Your task to perform on an android device: Go to location settings Image 0: 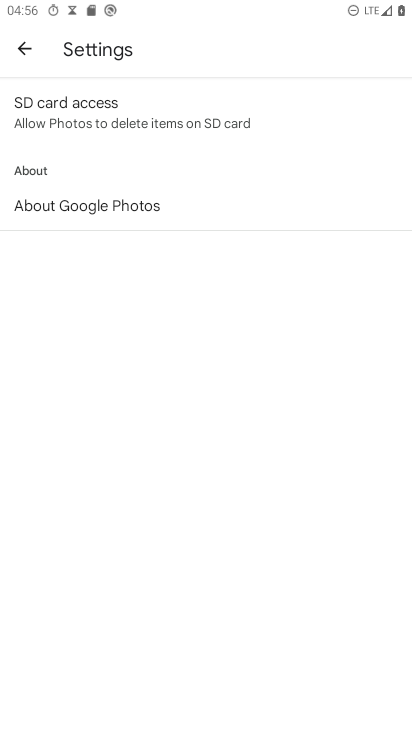
Step 0: press home button
Your task to perform on an android device: Go to location settings Image 1: 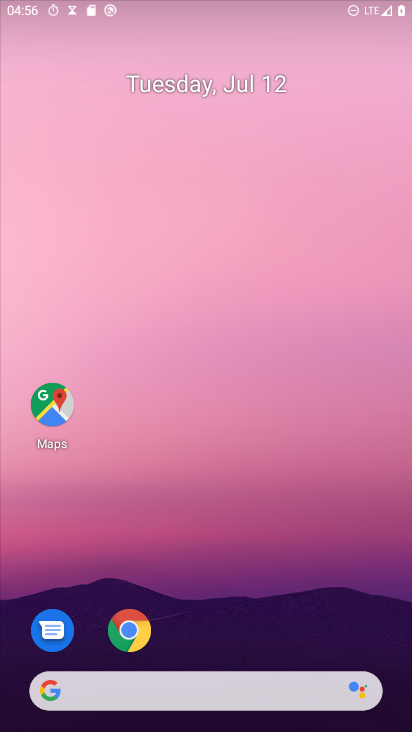
Step 1: drag from (203, 625) to (203, 1)
Your task to perform on an android device: Go to location settings Image 2: 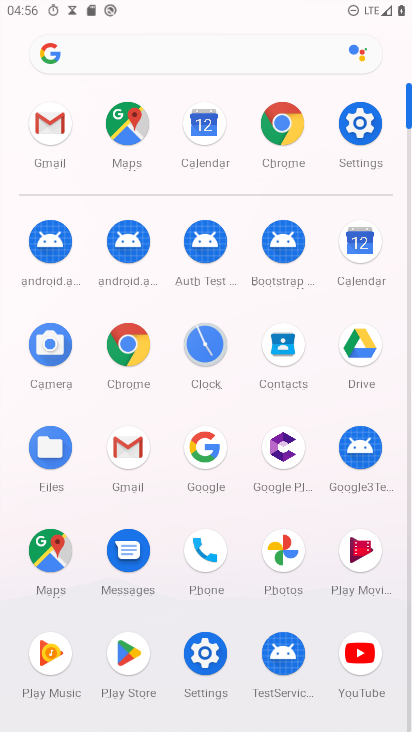
Step 2: click (366, 124)
Your task to perform on an android device: Go to location settings Image 3: 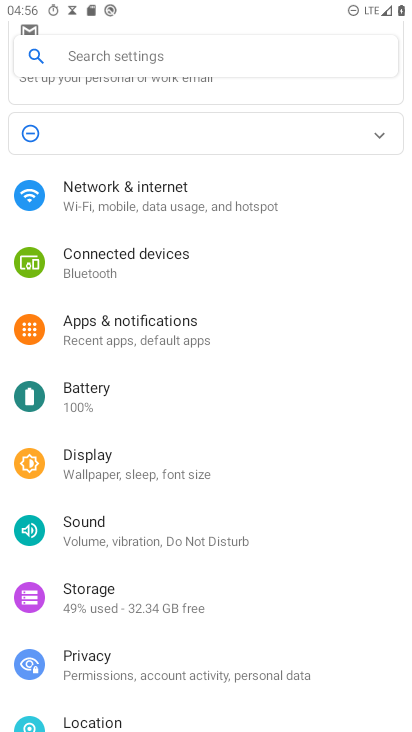
Step 3: click (144, 717)
Your task to perform on an android device: Go to location settings Image 4: 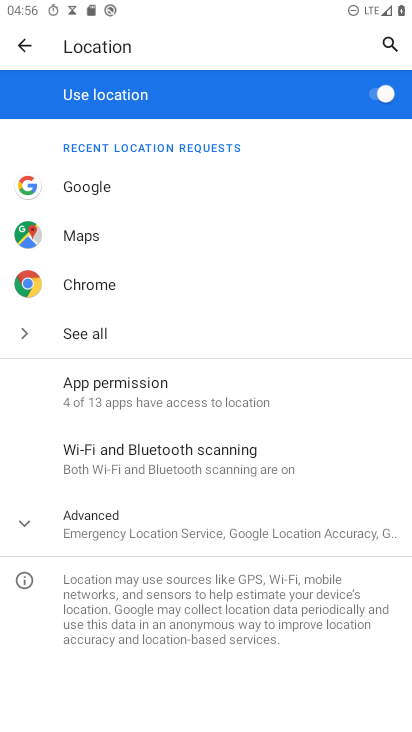
Step 4: task complete